Your task to perform on an android device: When is my next meeting? Image 0: 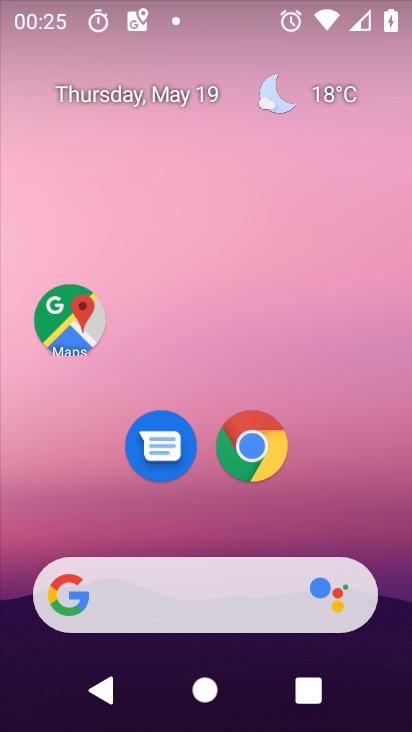
Step 0: drag from (229, 602) to (348, 140)
Your task to perform on an android device: When is my next meeting? Image 1: 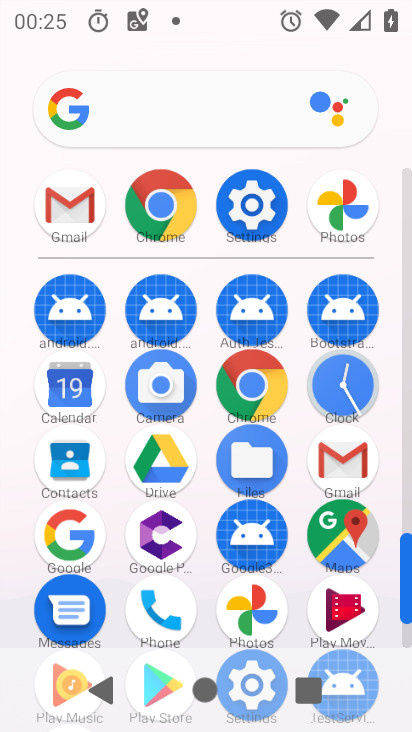
Step 1: click (80, 399)
Your task to perform on an android device: When is my next meeting? Image 2: 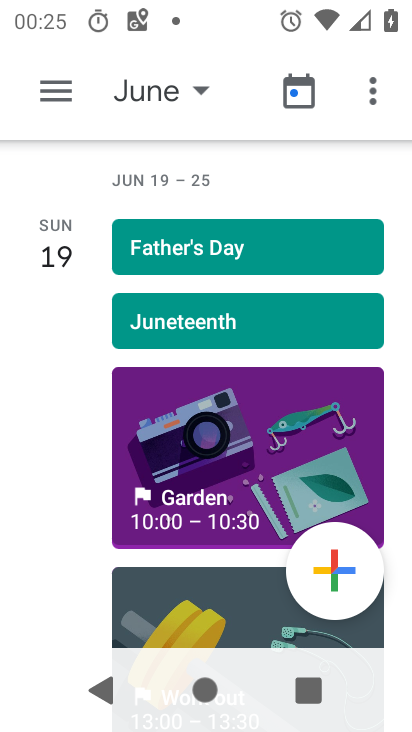
Step 2: click (143, 85)
Your task to perform on an android device: When is my next meeting? Image 3: 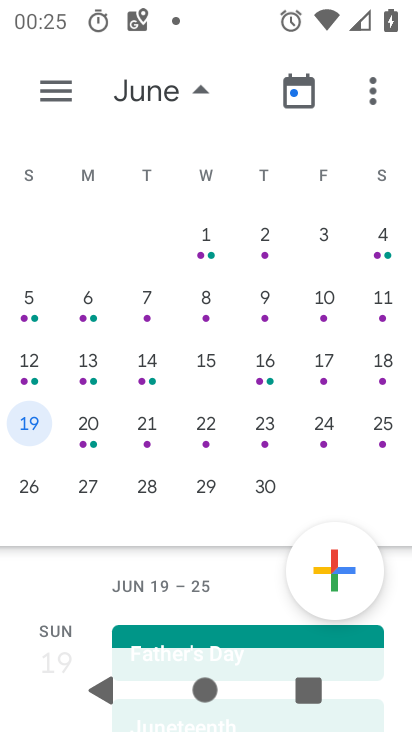
Step 3: drag from (91, 352) to (300, 433)
Your task to perform on an android device: When is my next meeting? Image 4: 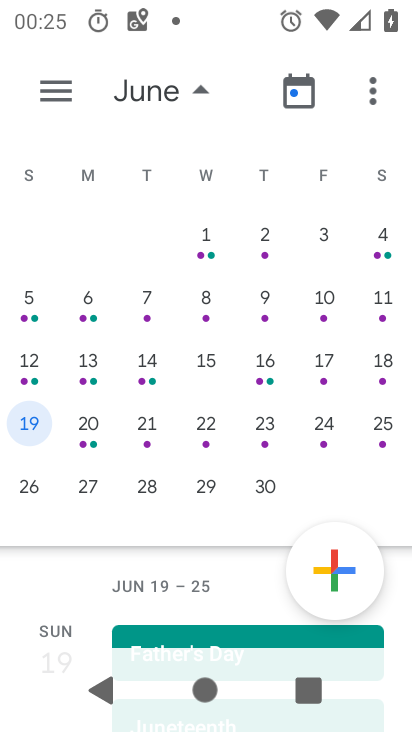
Step 4: drag from (143, 317) to (354, 351)
Your task to perform on an android device: When is my next meeting? Image 5: 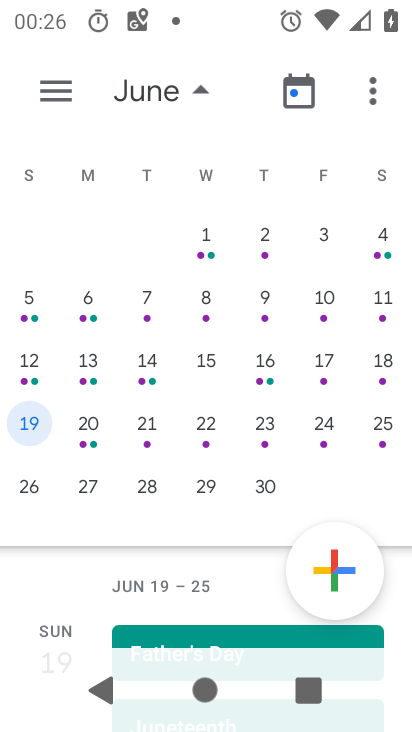
Step 5: drag from (88, 353) to (385, 403)
Your task to perform on an android device: When is my next meeting? Image 6: 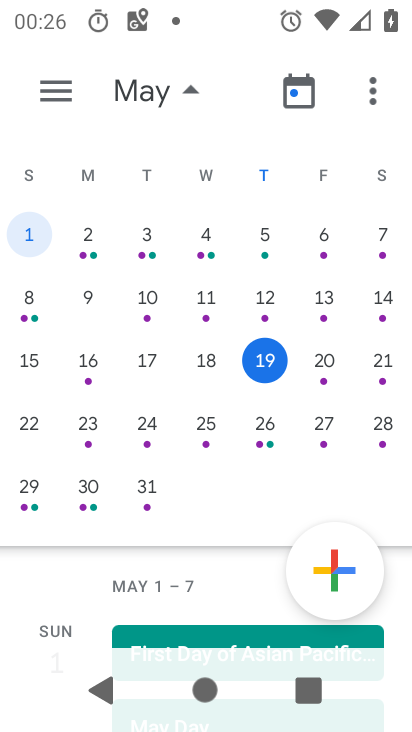
Step 6: click (272, 364)
Your task to perform on an android device: When is my next meeting? Image 7: 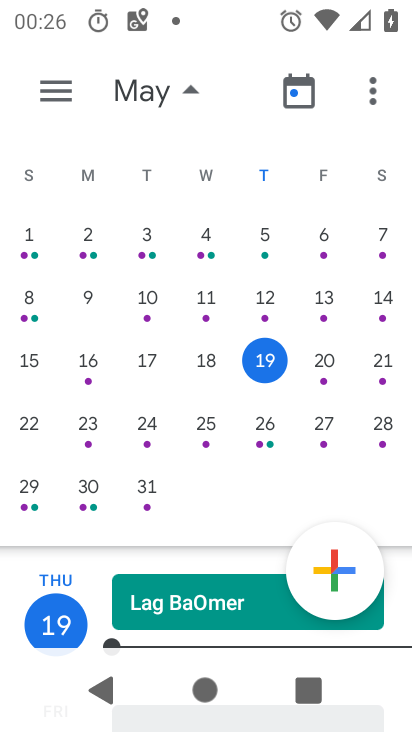
Step 7: click (59, 85)
Your task to perform on an android device: When is my next meeting? Image 8: 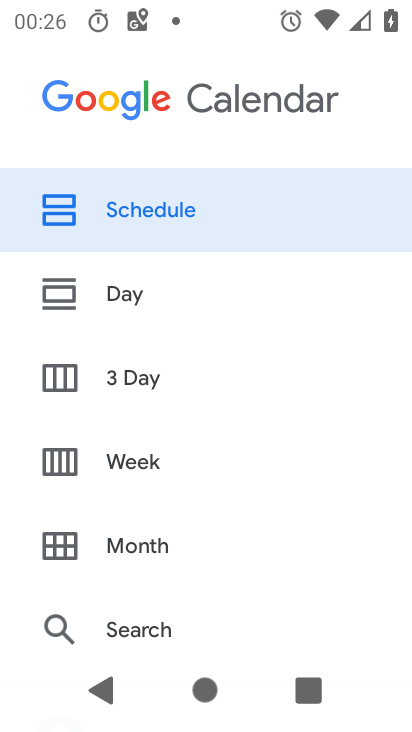
Step 8: click (150, 217)
Your task to perform on an android device: When is my next meeting? Image 9: 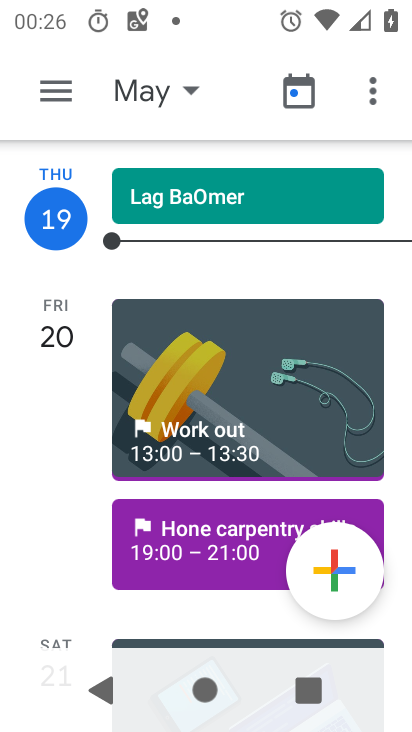
Step 9: click (215, 534)
Your task to perform on an android device: When is my next meeting? Image 10: 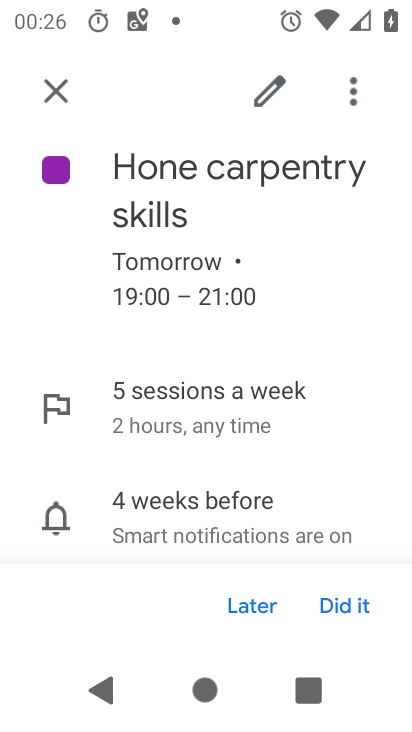
Step 10: task complete